Your task to perform on an android device: refresh tabs in the chrome app Image 0: 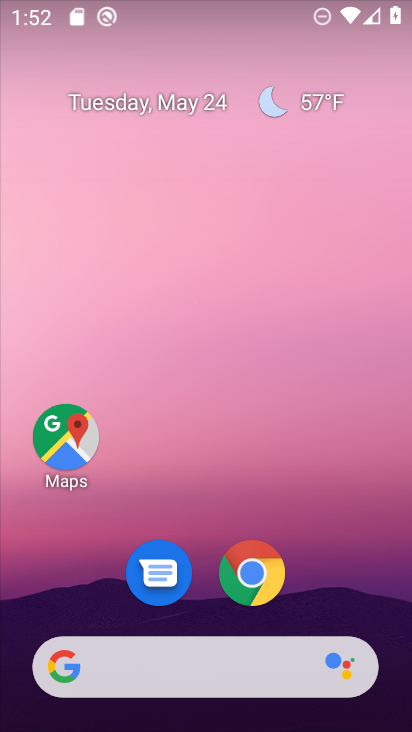
Step 0: drag from (404, 602) to (380, 132)
Your task to perform on an android device: refresh tabs in the chrome app Image 1: 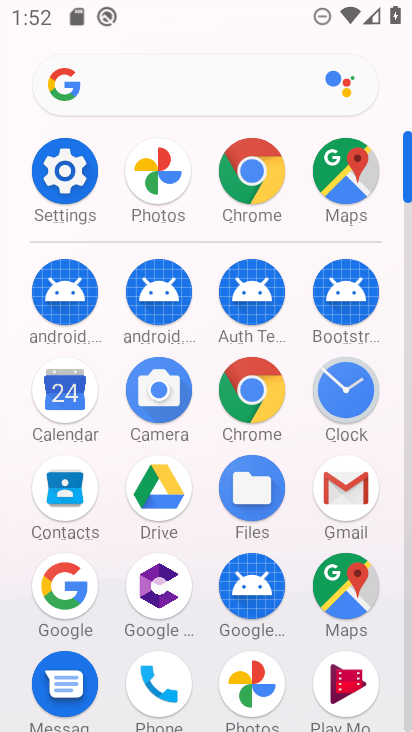
Step 1: click (263, 409)
Your task to perform on an android device: refresh tabs in the chrome app Image 2: 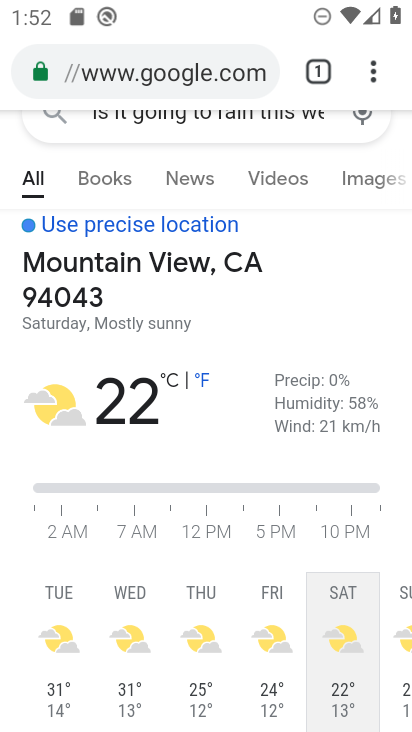
Step 2: click (371, 83)
Your task to perform on an android device: refresh tabs in the chrome app Image 3: 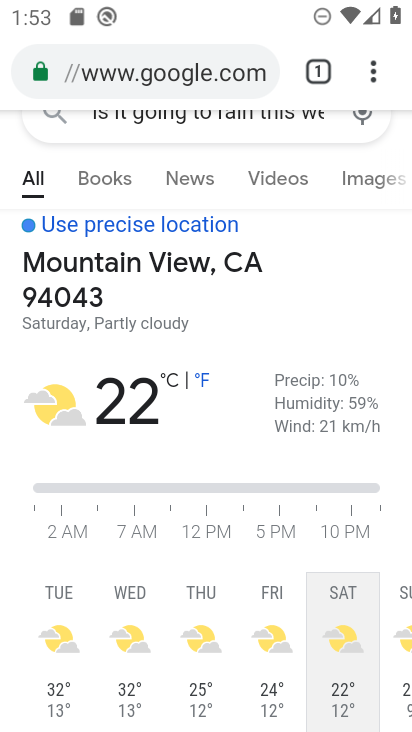
Step 3: task complete